Your task to perform on an android device: open app "Chime – Mobile Banking" (install if not already installed) Image 0: 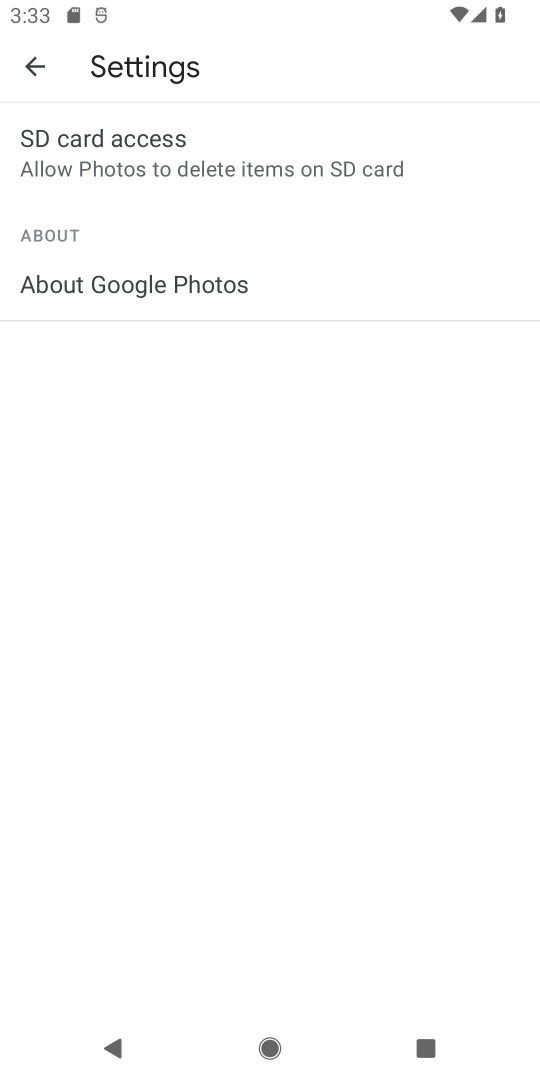
Step 0: press home button
Your task to perform on an android device: open app "Chime – Mobile Banking" (install if not already installed) Image 1: 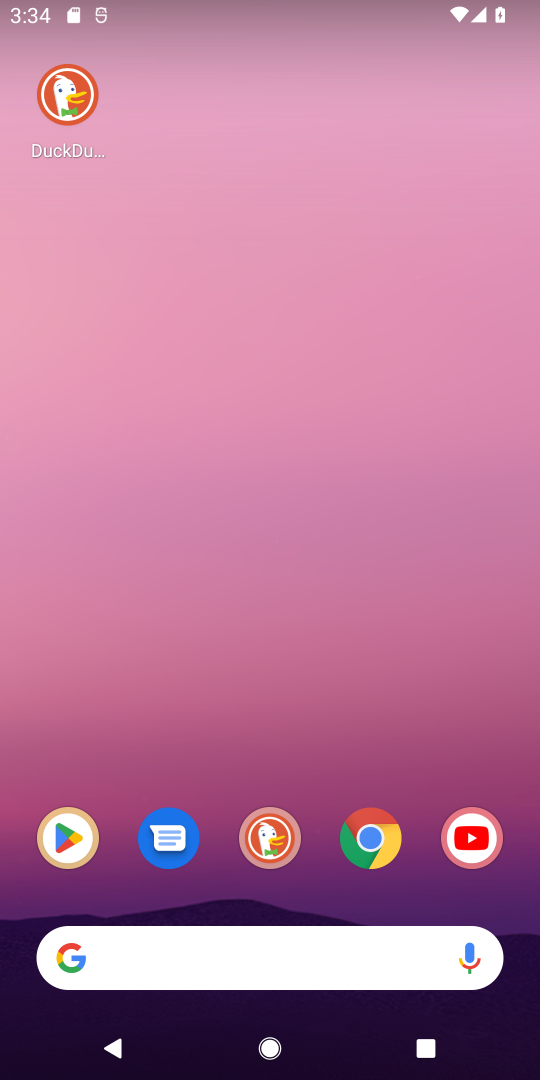
Step 1: click (71, 838)
Your task to perform on an android device: open app "Chime – Mobile Banking" (install if not already installed) Image 2: 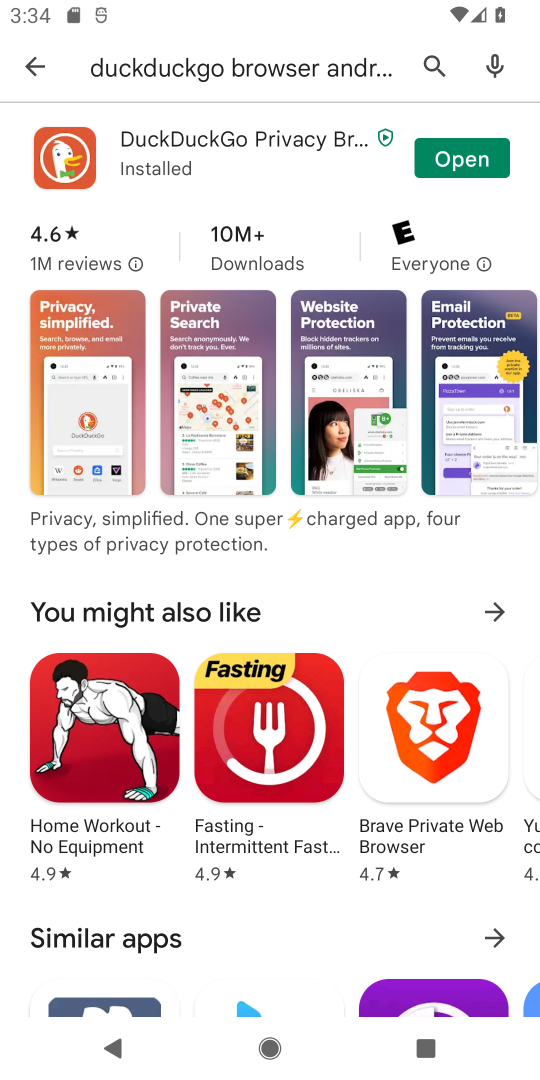
Step 2: click (435, 62)
Your task to perform on an android device: open app "Chime – Mobile Banking" (install if not already installed) Image 3: 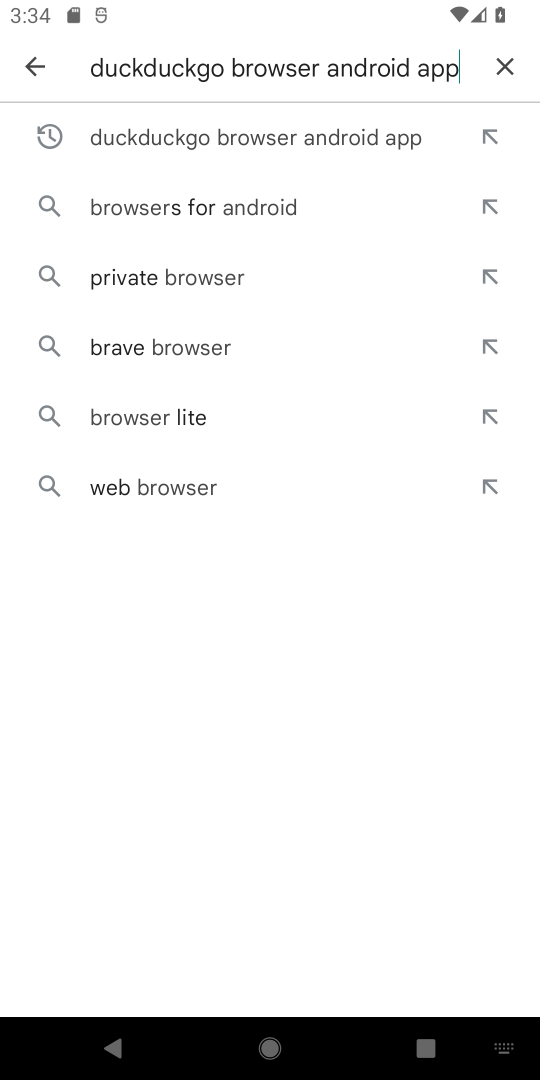
Step 3: click (501, 60)
Your task to perform on an android device: open app "Chime – Mobile Banking" (install if not already installed) Image 4: 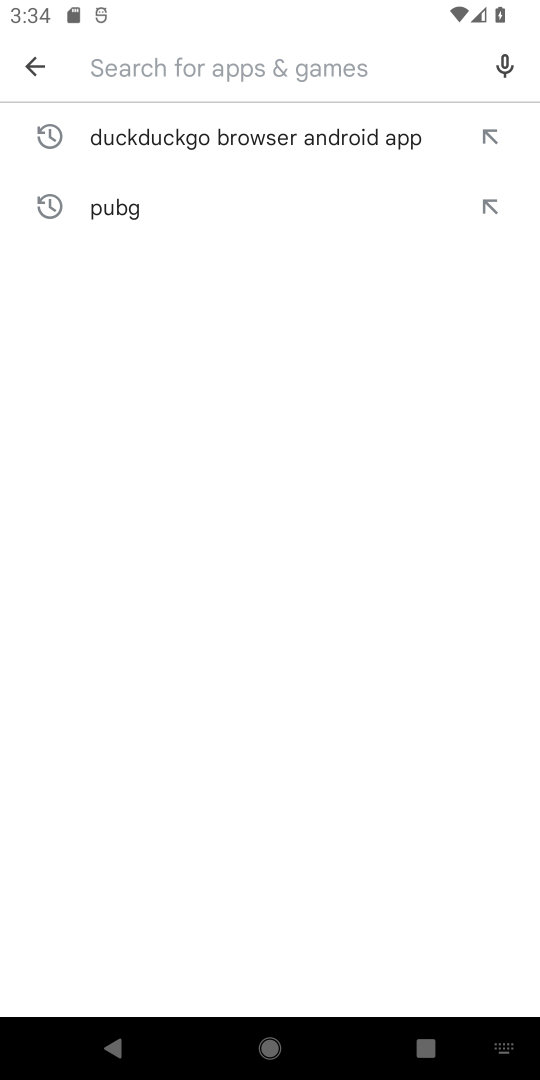
Step 4: type "chime"
Your task to perform on an android device: open app "Chime – Mobile Banking" (install if not already installed) Image 5: 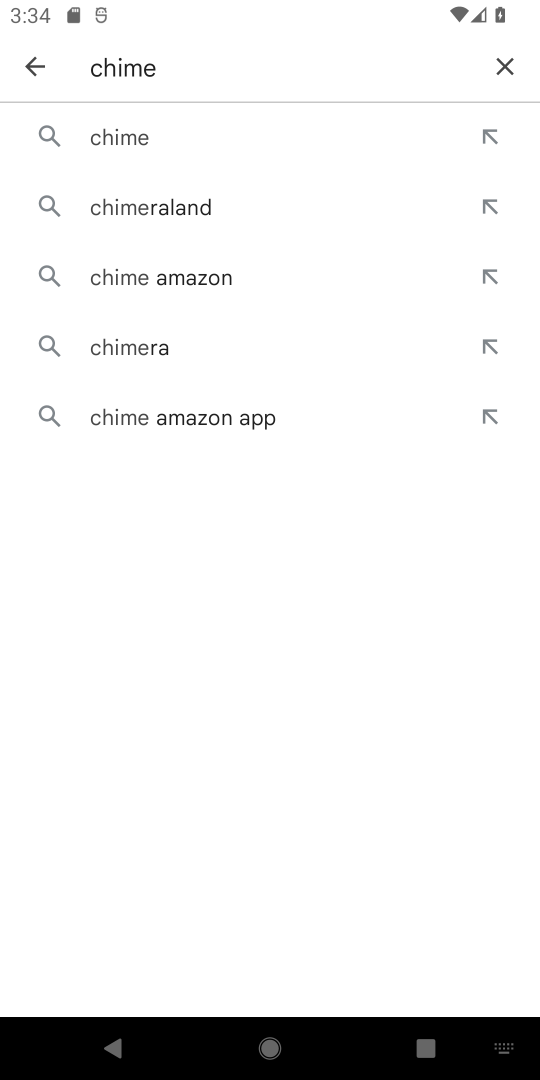
Step 5: click (134, 139)
Your task to perform on an android device: open app "Chime – Mobile Banking" (install if not already installed) Image 6: 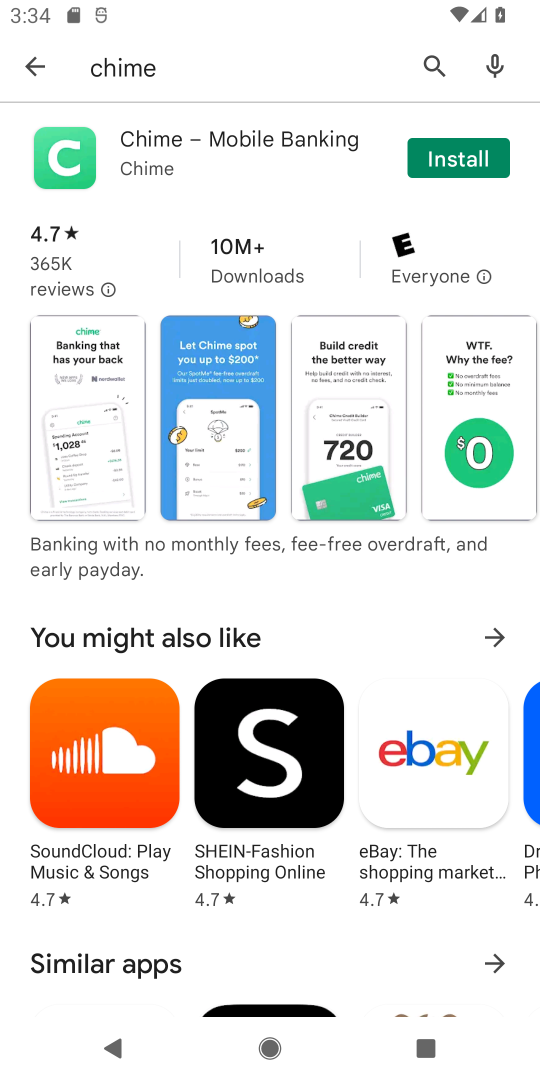
Step 6: click (460, 162)
Your task to perform on an android device: open app "Chime – Mobile Banking" (install if not already installed) Image 7: 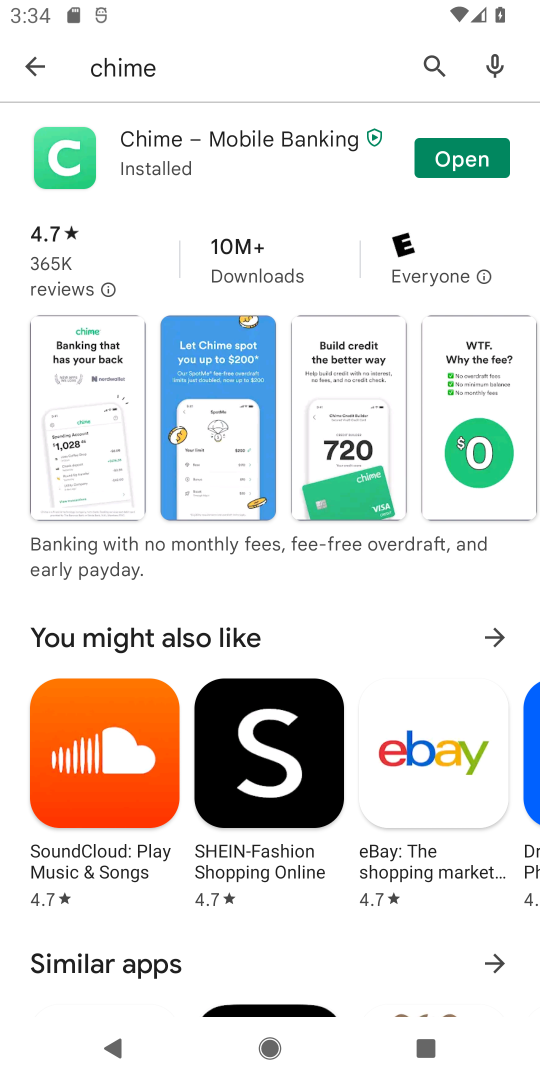
Step 7: click (460, 162)
Your task to perform on an android device: open app "Chime – Mobile Banking" (install if not already installed) Image 8: 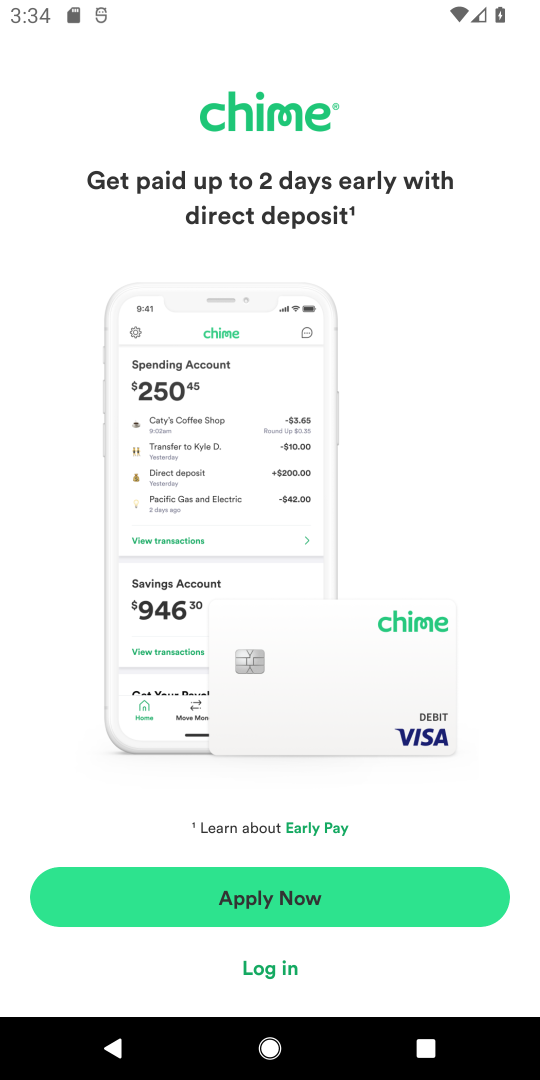
Step 8: task complete